Your task to perform on an android device: Go to Wikipedia Image 0: 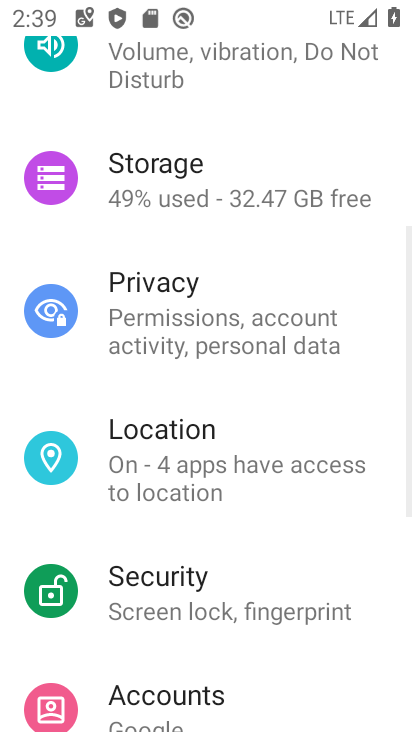
Step 0: press home button
Your task to perform on an android device: Go to Wikipedia Image 1: 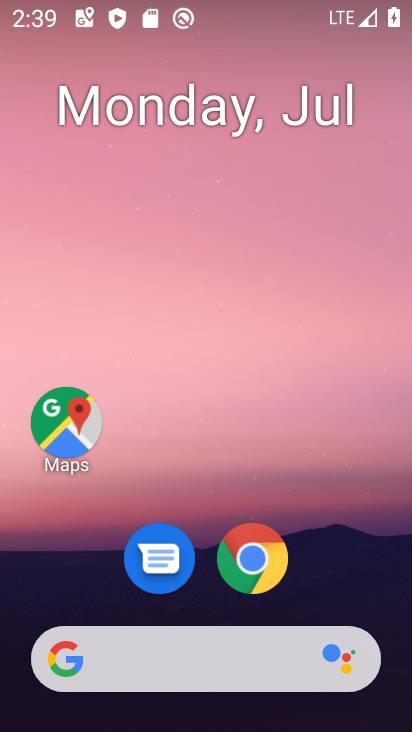
Step 1: drag from (333, 573) to (308, 123)
Your task to perform on an android device: Go to Wikipedia Image 2: 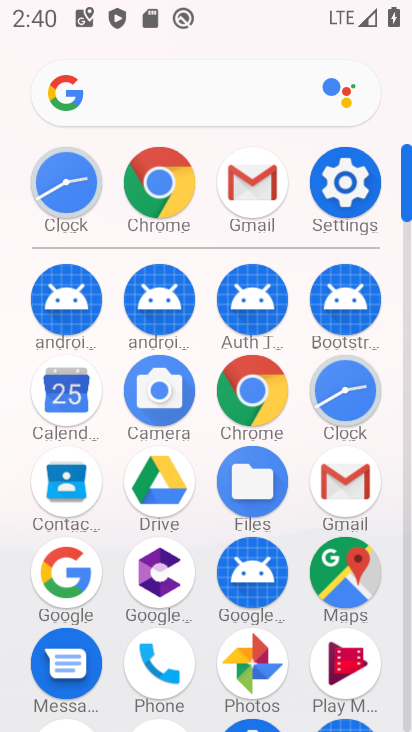
Step 2: click (257, 382)
Your task to perform on an android device: Go to Wikipedia Image 3: 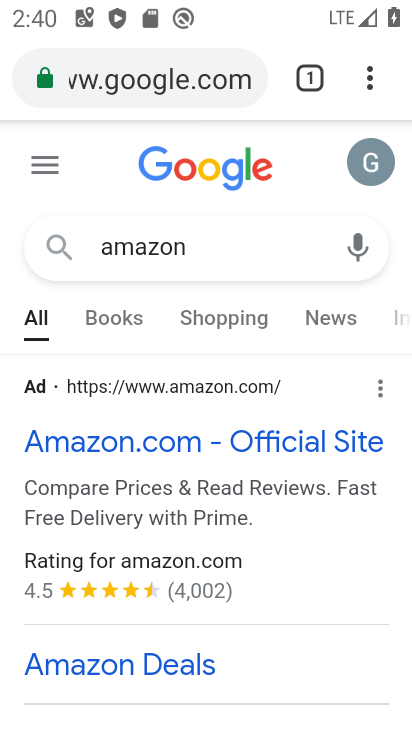
Step 3: click (207, 78)
Your task to perform on an android device: Go to Wikipedia Image 4: 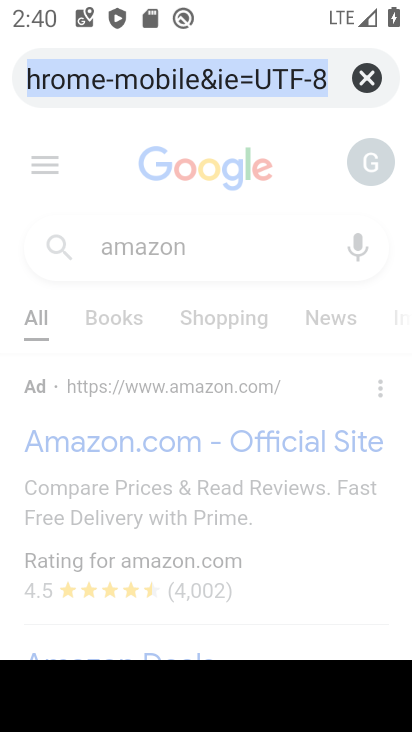
Step 4: type "wikipedia"
Your task to perform on an android device: Go to Wikipedia Image 5: 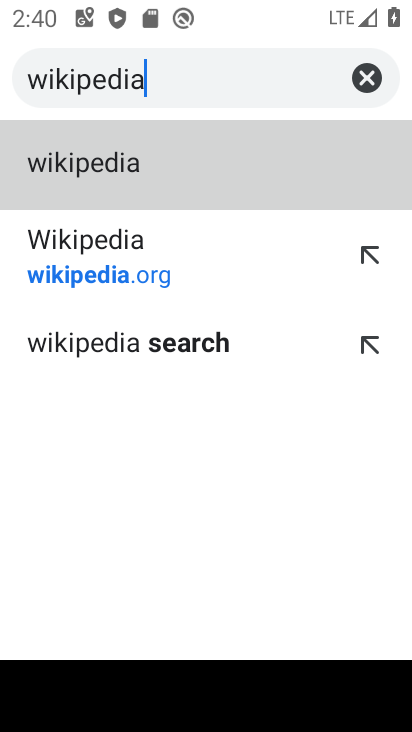
Step 5: click (358, 177)
Your task to perform on an android device: Go to Wikipedia Image 6: 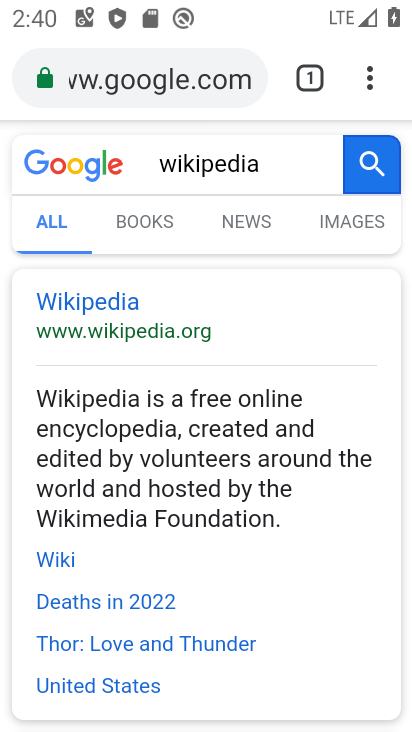
Step 6: task complete